Your task to perform on an android device: Open the map Image 0: 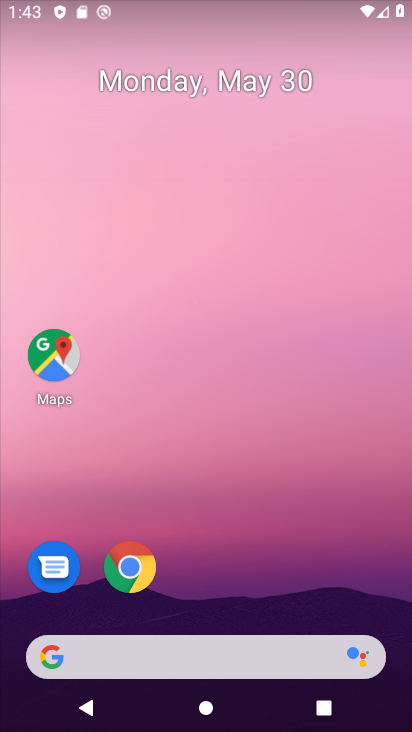
Step 0: drag from (245, 576) to (331, 155)
Your task to perform on an android device: Open the map Image 1: 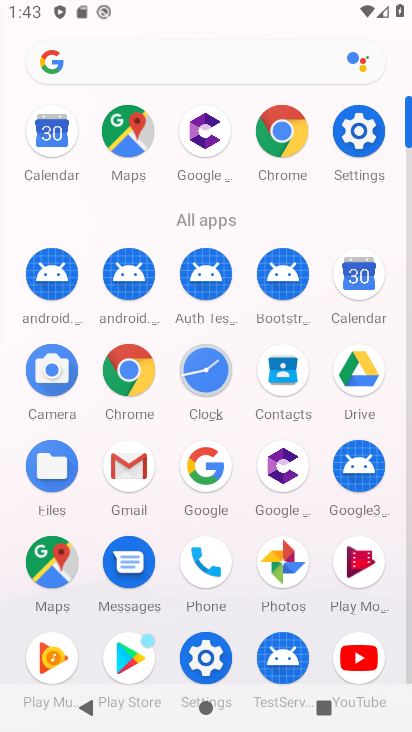
Step 1: click (101, 137)
Your task to perform on an android device: Open the map Image 2: 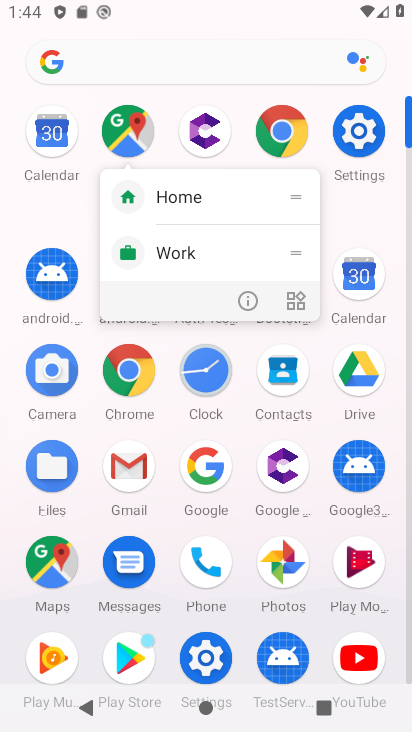
Step 2: click (113, 132)
Your task to perform on an android device: Open the map Image 3: 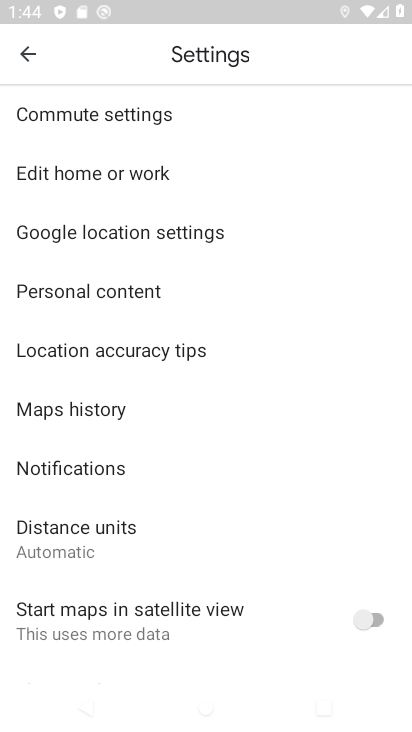
Step 3: task complete